Your task to perform on an android device: Toggle the flashlight Image 0: 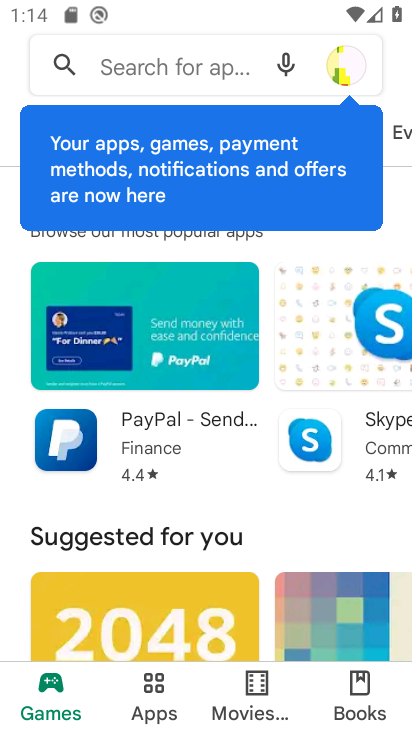
Step 0: press home button
Your task to perform on an android device: Toggle the flashlight Image 1: 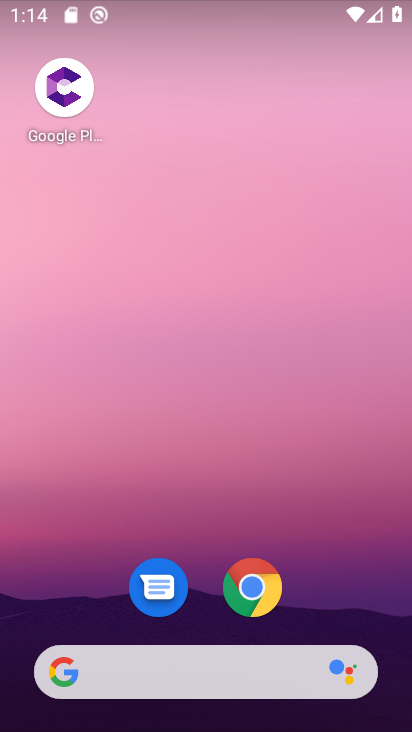
Step 1: drag from (206, 613) to (211, 25)
Your task to perform on an android device: Toggle the flashlight Image 2: 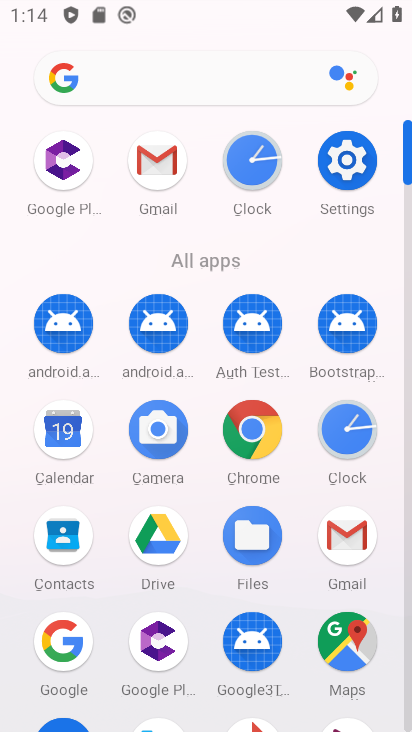
Step 2: click (345, 155)
Your task to perform on an android device: Toggle the flashlight Image 3: 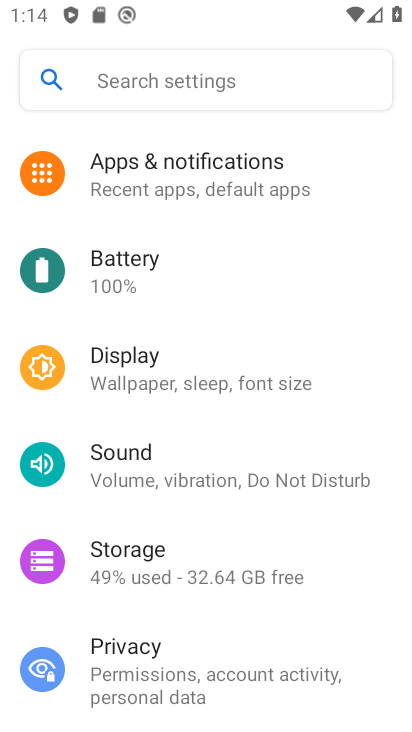
Step 3: click (145, 75)
Your task to perform on an android device: Toggle the flashlight Image 4: 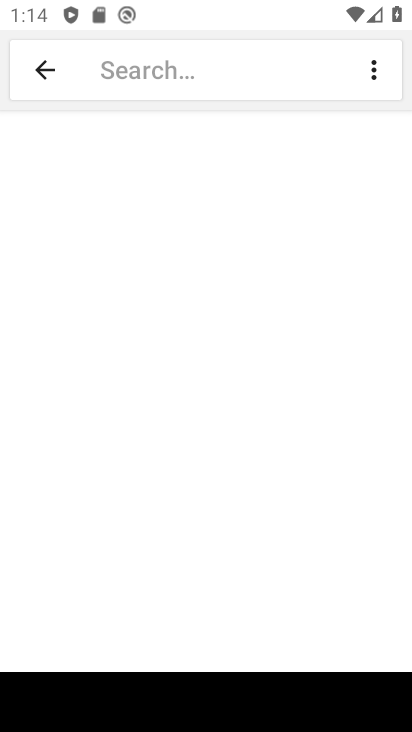
Step 4: type "flashlight"
Your task to perform on an android device: Toggle the flashlight Image 5: 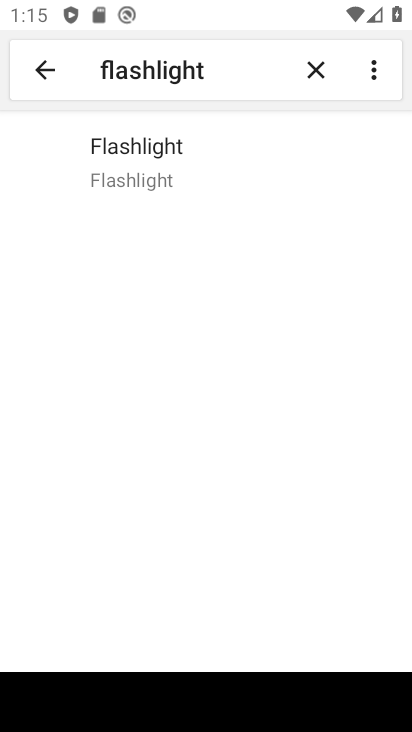
Step 5: click (183, 159)
Your task to perform on an android device: Toggle the flashlight Image 6: 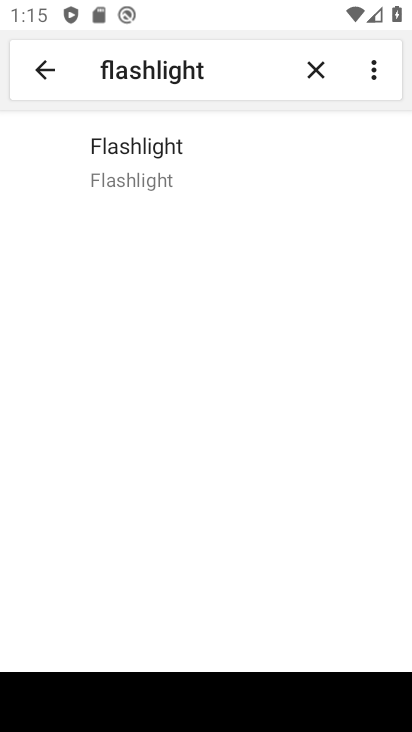
Step 6: click (184, 164)
Your task to perform on an android device: Toggle the flashlight Image 7: 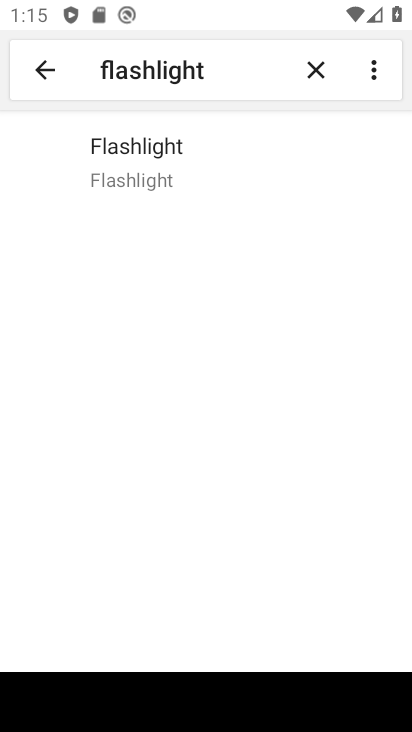
Step 7: task complete